Your task to perform on an android device: Open CNN.com Image 0: 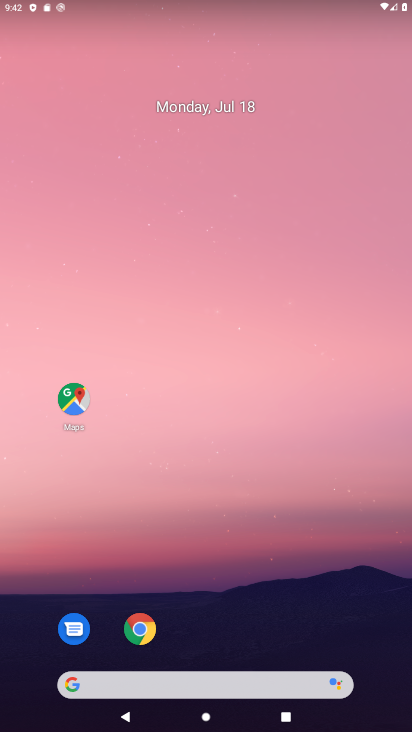
Step 0: click (131, 634)
Your task to perform on an android device: Open CNN.com Image 1: 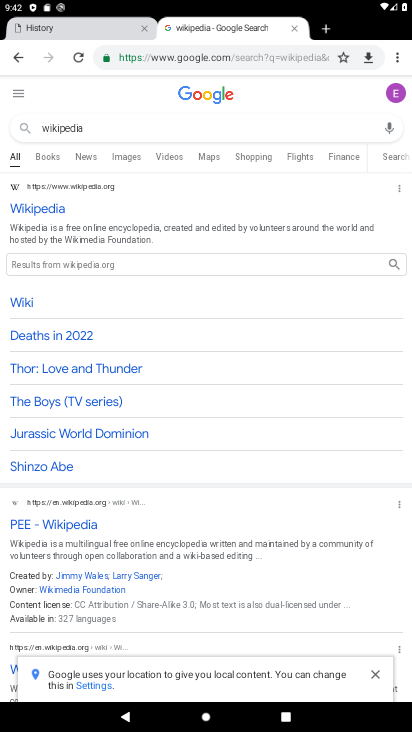
Step 1: click (201, 63)
Your task to perform on an android device: Open CNN.com Image 2: 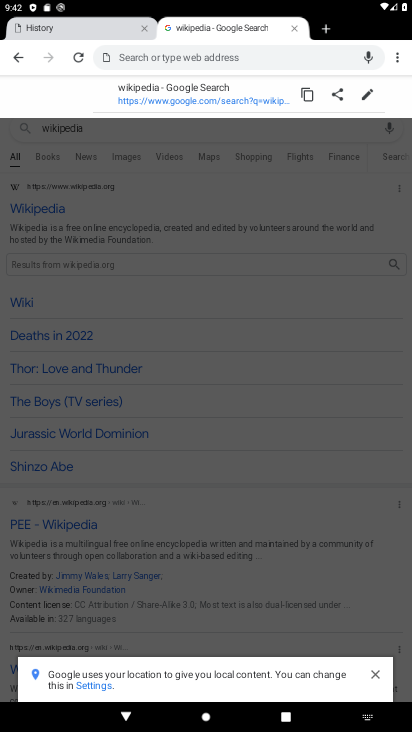
Step 2: type "cnn.com"
Your task to perform on an android device: Open CNN.com Image 3: 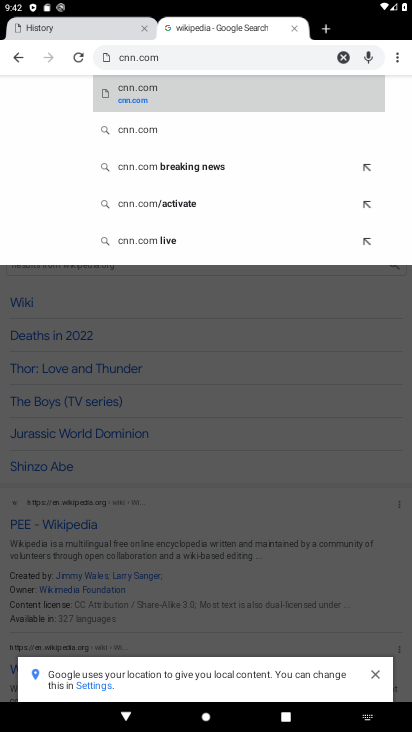
Step 3: click (162, 90)
Your task to perform on an android device: Open CNN.com Image 4: 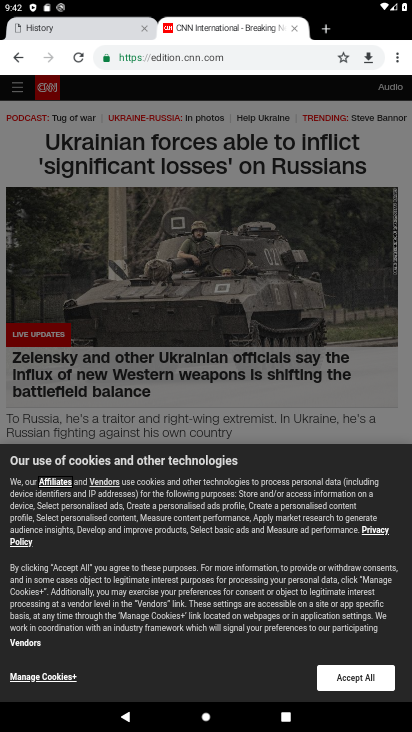
Step 4: task complete